Your task to perform on an android device: What's the weather? Image 0: 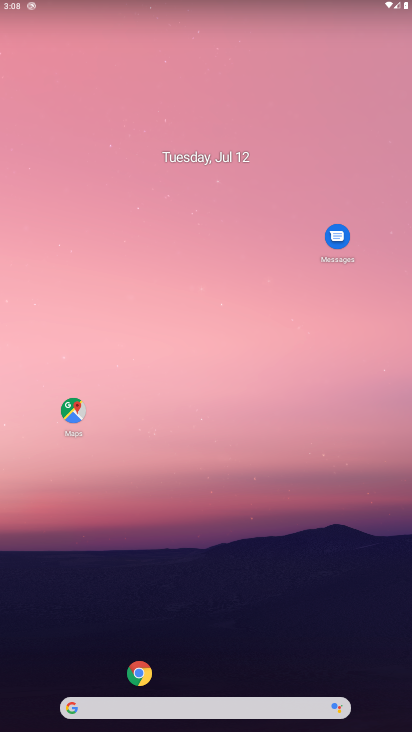
Step 0: click (103, 710)
Your task to perform on an android device: What's the weather? Image 1: 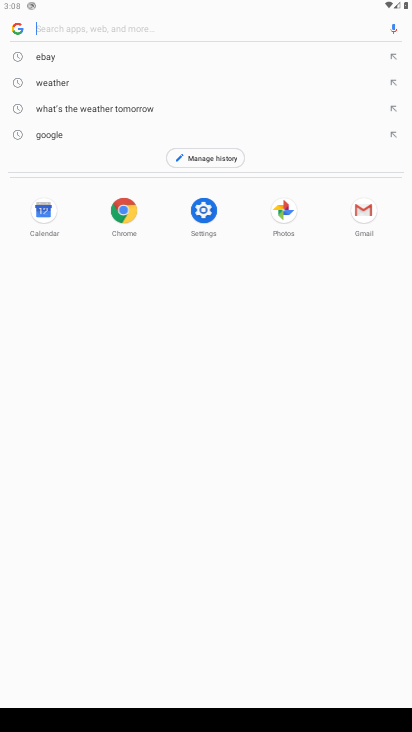
Step 1: click (110, 29)
Your task to perform on an android device: What's the weather? Image 2: 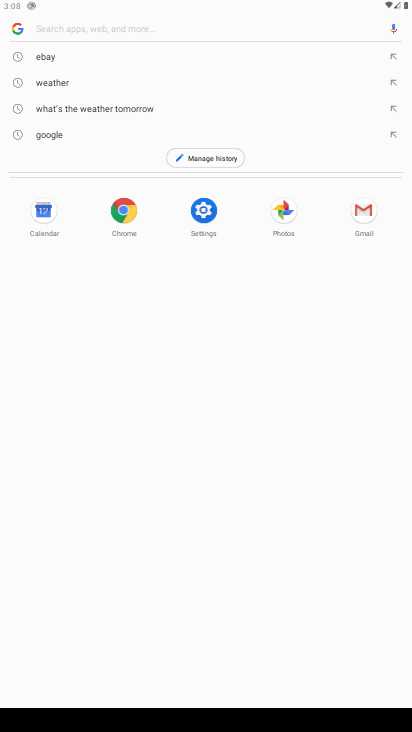
Step 2: type "What's the weather?"
Your task to perform on an android device: What's the weather? Image 3: 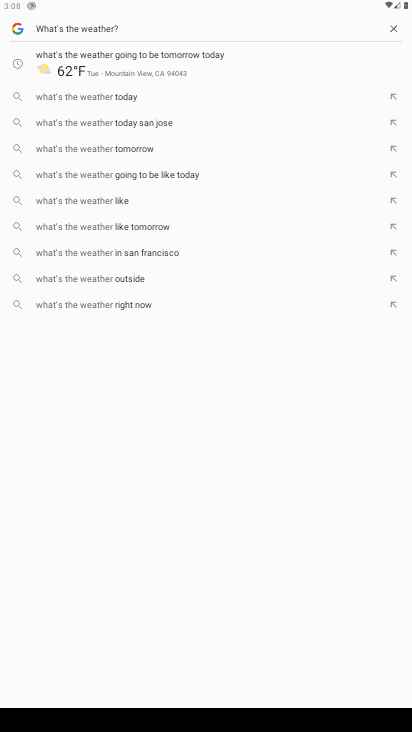
Step 3: task complete